Your task to perform on an android device: Open battery settings Image 0: 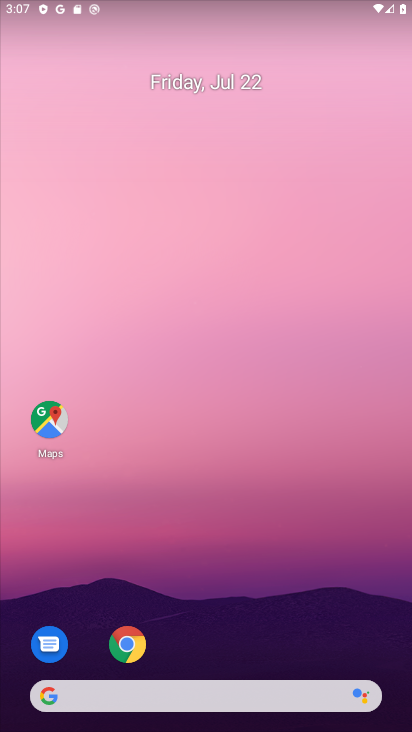
Step 0: drag from (231, 721) to (231, 129)
Your task to perform on an android device: Open battery settings Image 1: 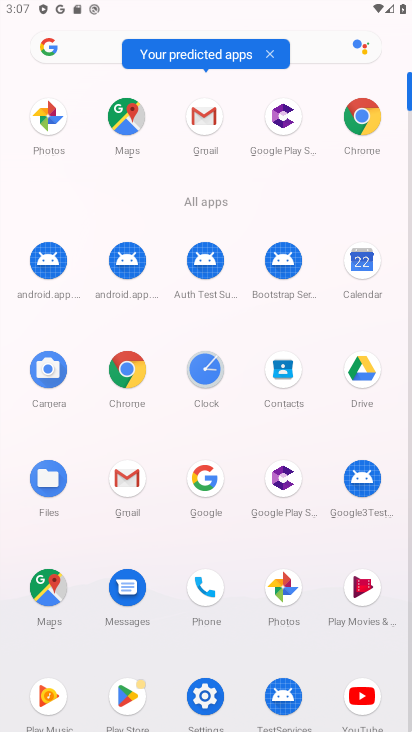
Step 1: click (203, 697)
Your task to perform on an android device: Open battery settings Image 2: 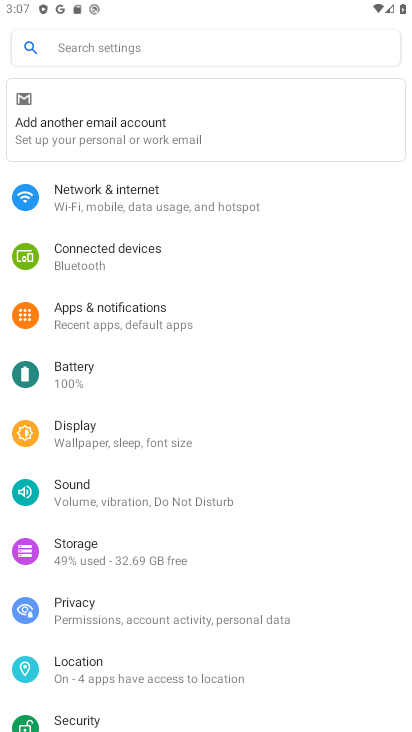
Step 2: click (71, 368)
Your task to perform on an android device: Open battery settings Image 3: 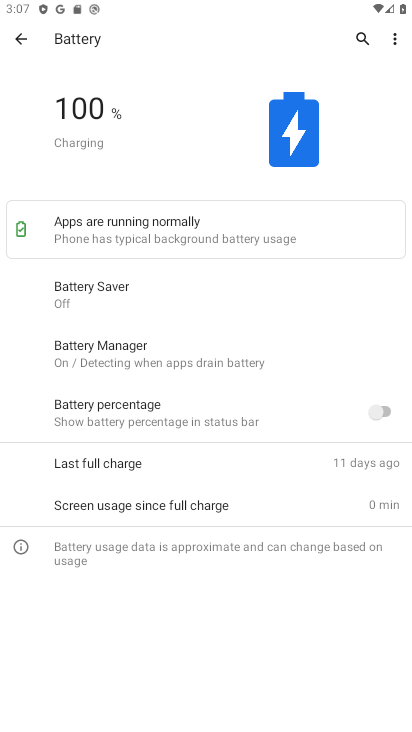
Step 3: task complete